Your task to perform on an android device: allow cookies in the chrome app Image 0: 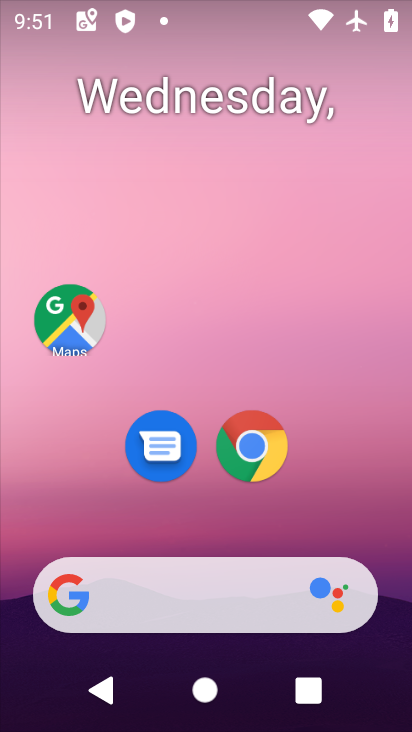
Step 0: press home button
Your task to perform on an android device: allow cookies in the chrome app Image 1: 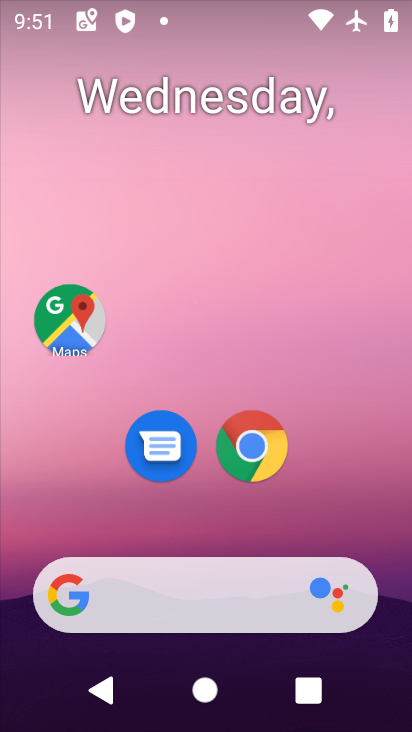
Step 1: click (245, 457)
Your task to perform on an android device: allow cookies in the chrome app Image 2: 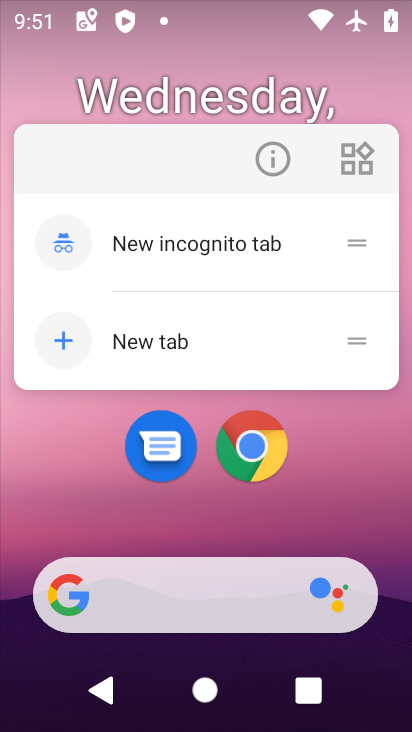
Step 2: click (248, 456)
Your task to perform on an android device: allow cookies in the chrome app Image 3: 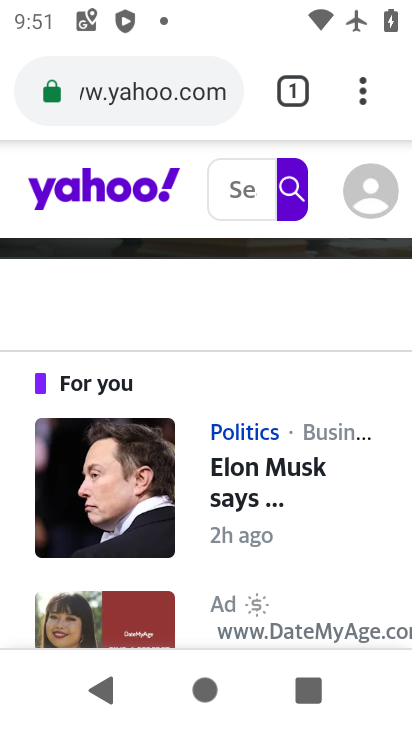
Step 3: drag from (360, 96) to (214, 474)
Your task to perform on an android device: allow cookies in the chrome app Image 4: 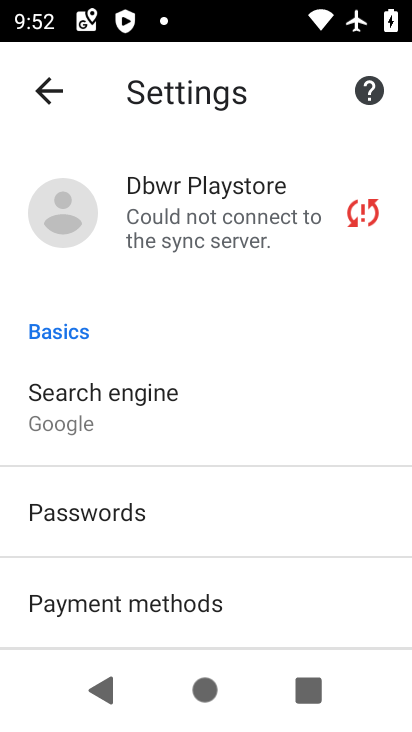
Step 4: drag from (142, 568) to (256, 231)
Your task to perform on an android device: allow cookies in the chrome app Image 5: 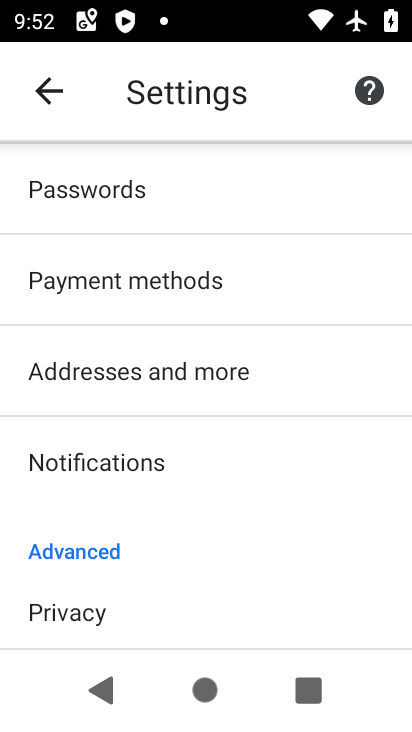
Step 5: drag from (208, 577) to (306, 196)
Your task to perform on an android device: allow cookies in the chrome app Image 6: 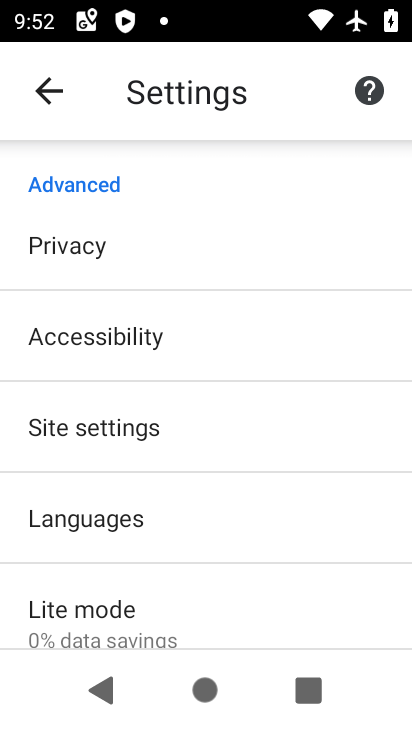
Step 6: click (99, 425)
Your task to perform on an android device: allow cookies in the chrome app Image 7: 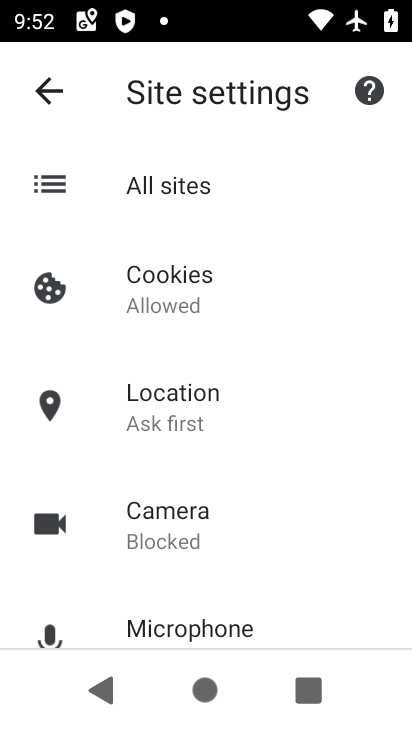
Step 7: click (181, 280)
Your task to perform on an android device: allow cookies in the chrome app Image 8: 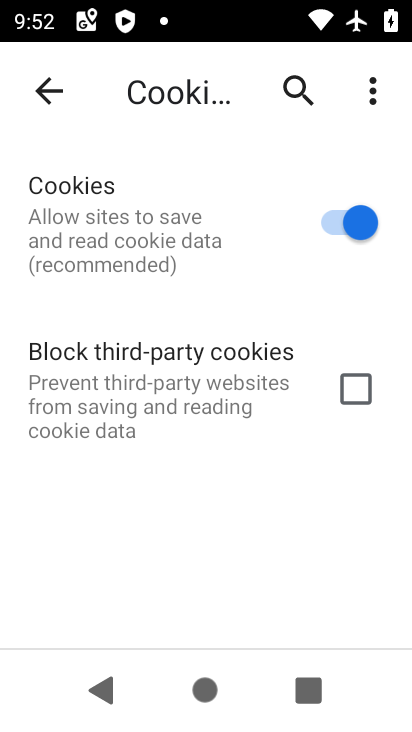
Step 8: task complete